Your task to perform on an android device: Go to eBay Image 0: 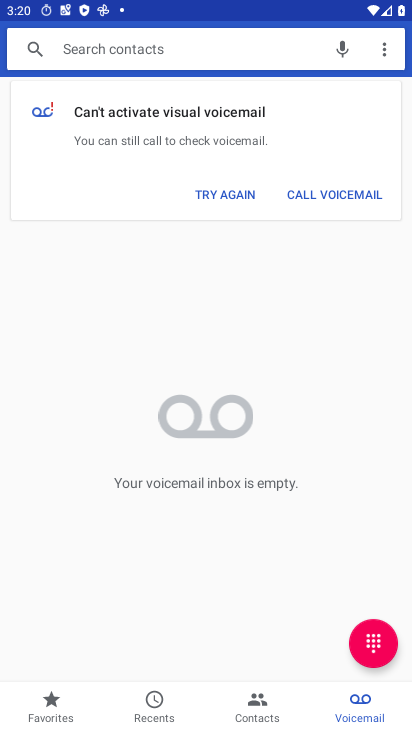
Step 0: press home button
Your task to perform on an android device: Go to eBay Image 1: 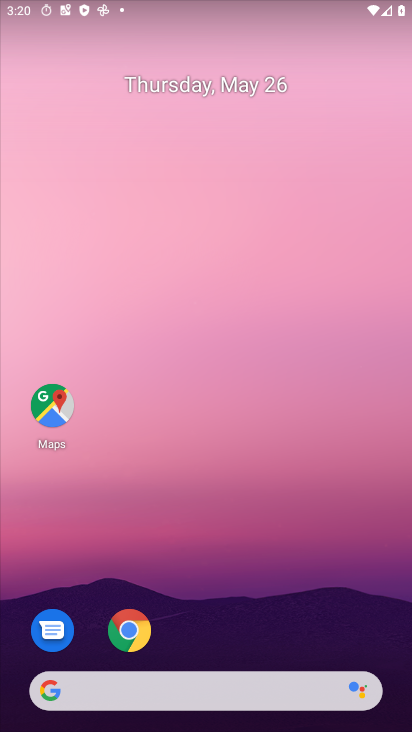
Step 1: click (138, 629)
Your task to perform on an android device: Go to eBay Image 2: 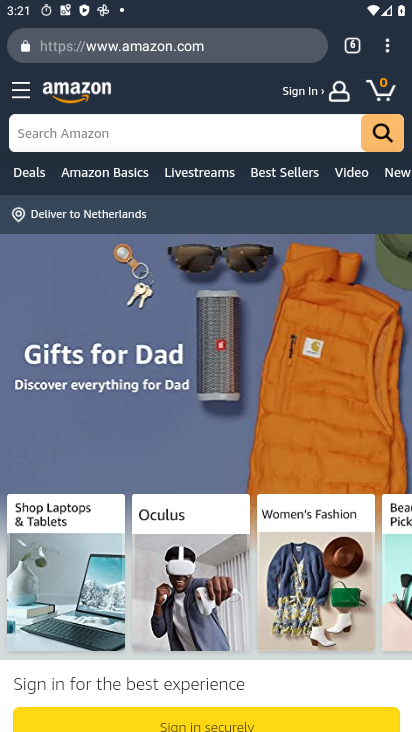
Step 2: click (360, 47)
Your task to perform on an android device: Go to eBay Image 3: 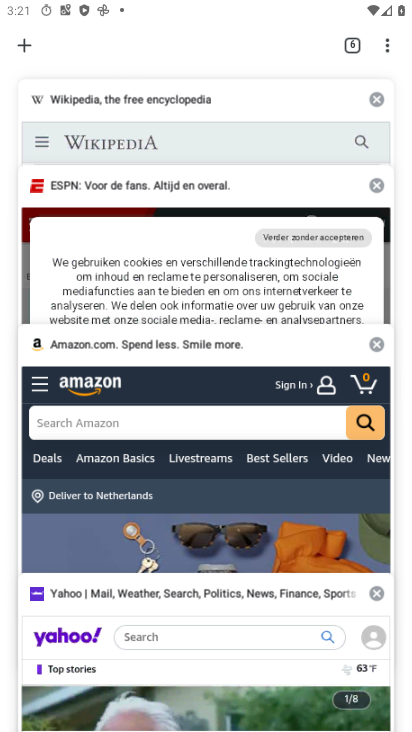
Step 3: drag from (201, 150) to (261, 583)
Your task to perform on an android device: Go to eBay Image 4: 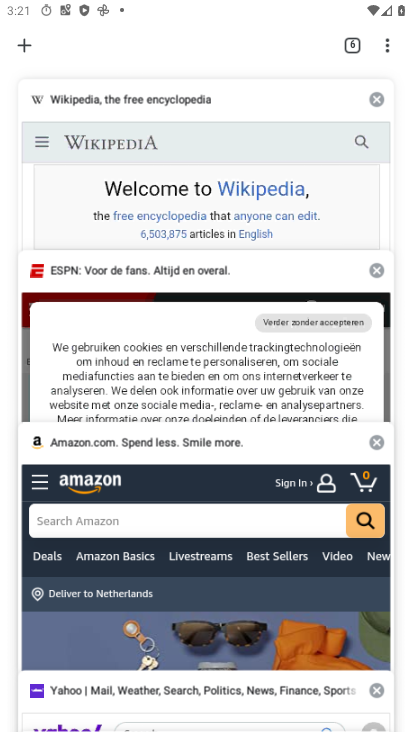
Step 4: drag from (171, 99) to (195, 488)
Your task to perform on an android device: Go to eBay Image 5: 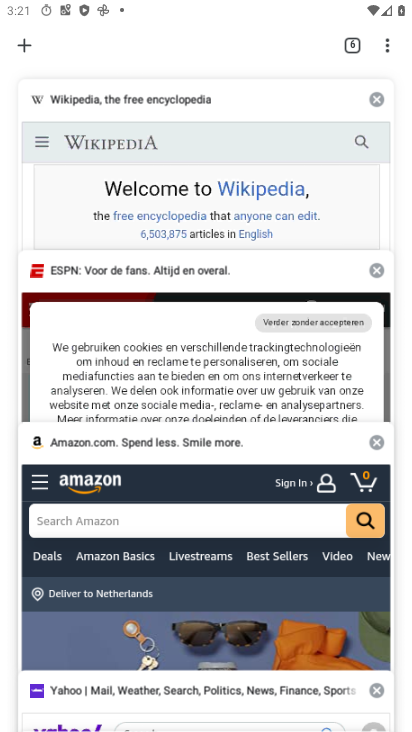
Step 5: drag from (258, 571) to (265, 106)
Your task to perform on an android device: Go to eBay Image 6: 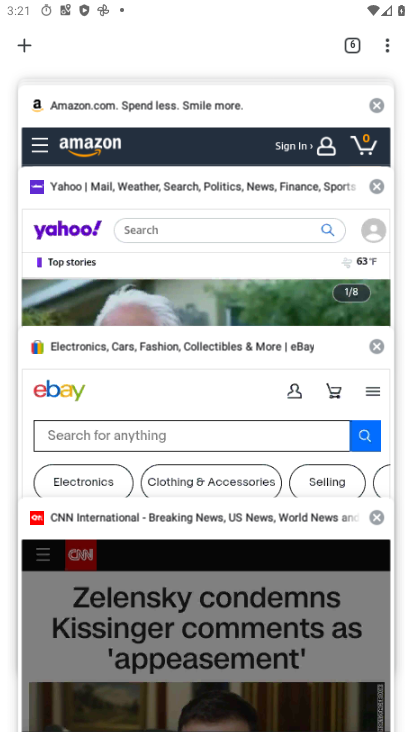
Step 6: click (173, 405)
Your task to perform on an android device: Go to eBay Image 7: 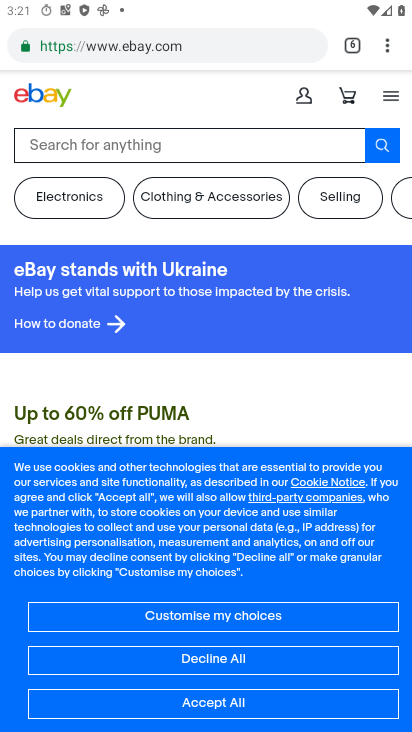
Step 7: task complete